Your task to perform on an android device: turn on javascript in the chrome app Image 0: 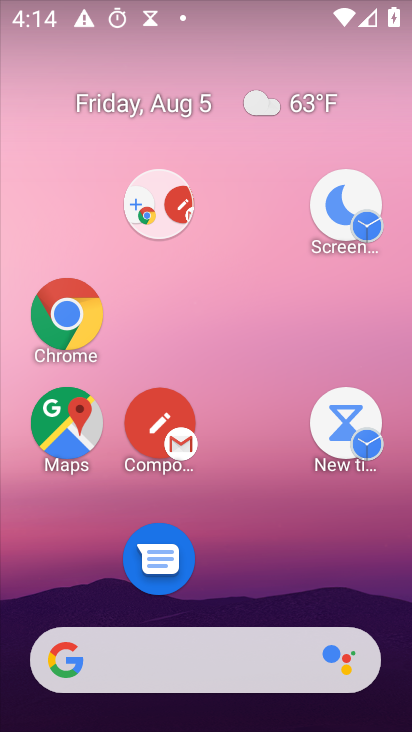
Step 0: press home button
Your task to perform on an android device: turn on javascript in the chrome app Image 1: 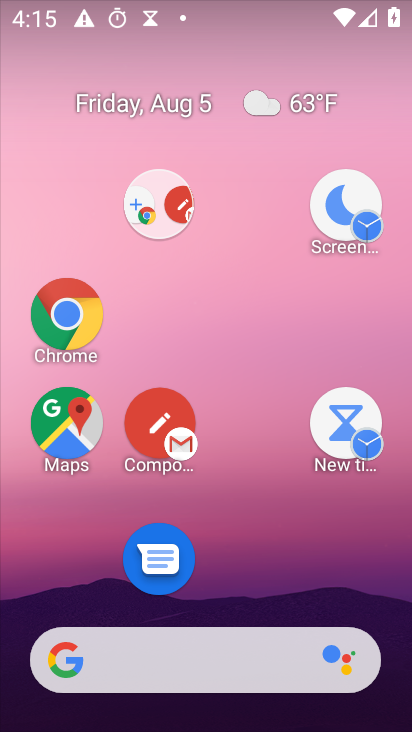
Step 1: drag from (276, 524) to (253, 64)
Your task to perform on an android device: turn on javascript in the chrome app Image 2: 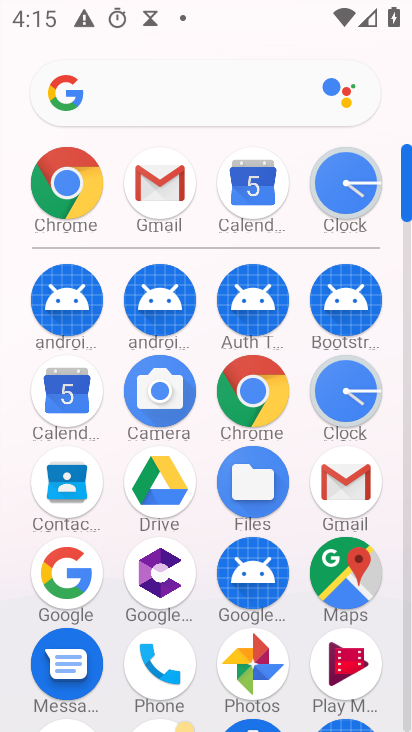
Step 2: click (85, 185)
Your task to perform on an android device: turn on javascript in the chrome app Image 3: 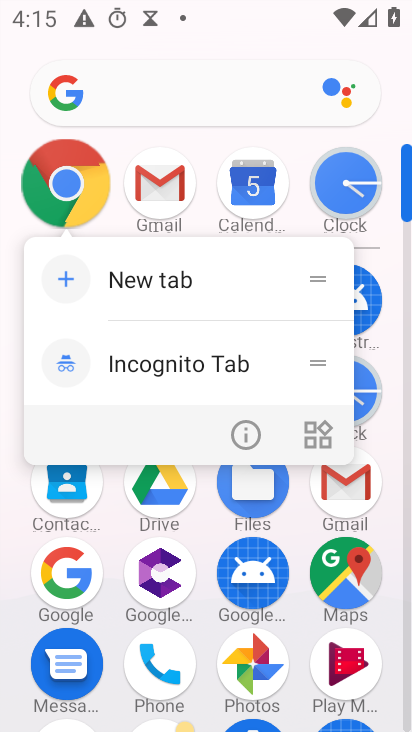
Step 3: click (87, 187)
Your task to perform on an android device: turn on javascript in the chrome app Image 4: 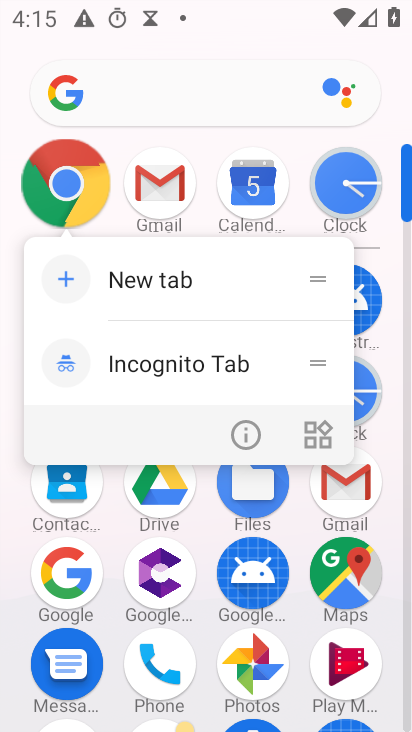
Step 4: click (79, 181)
Your task to perform on an android device: turn on javascript in the chrome app Image 5: 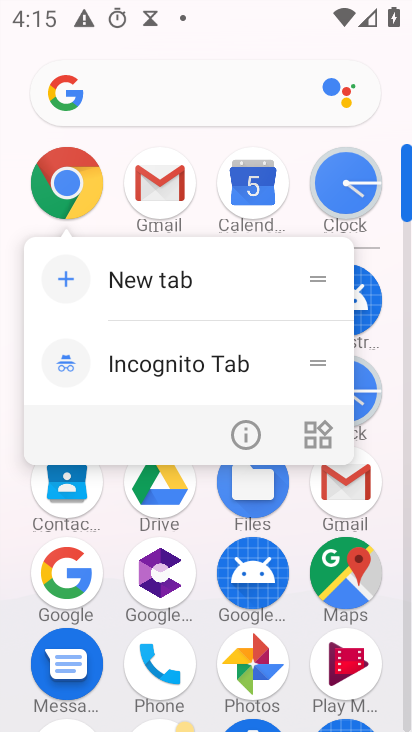
Step 5: click (131, 261)
Your task to perform on an android device: turn on javascript in the chrome app Image 6: 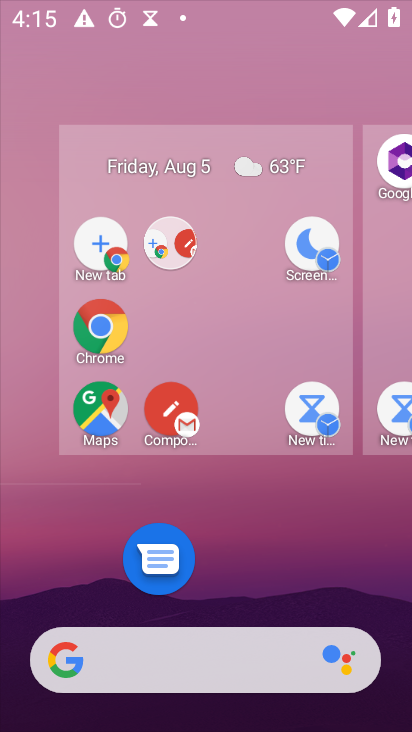
Step 6: drag from (238, 573) to (114, 95)
Your task to perform on an android device: turn on javascript in the chrome app Image 7: 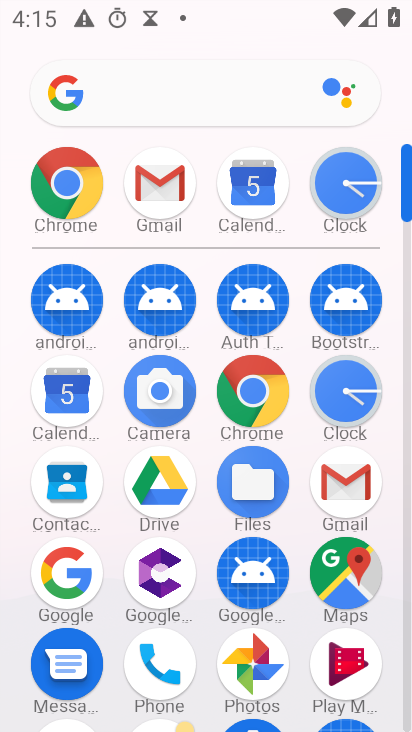
Step 7: click (78, 195)
Your task to perform on an android device: turn on javascript in the chrome app Image 8: 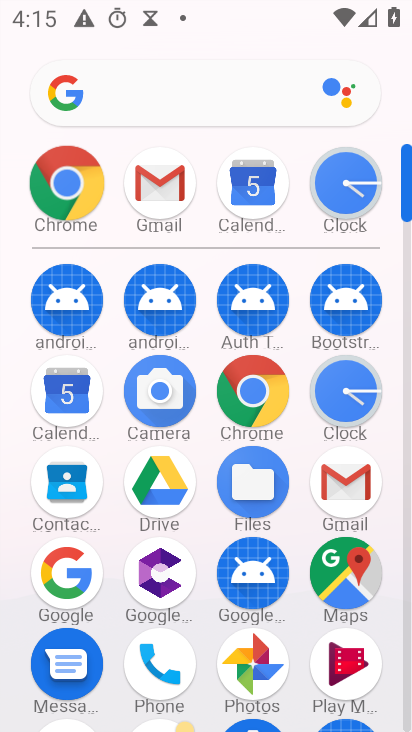
Step 8: click (70, 207)
Your task to perform on an android device: turn on javascript in the chrome app Image 9: 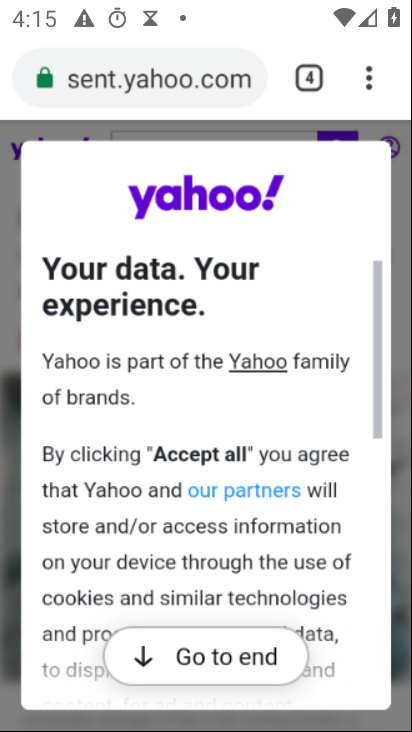
Step 9: click (84, 196)
Your task to perform on an android device: turn on javascript in the chrome app Image 10: 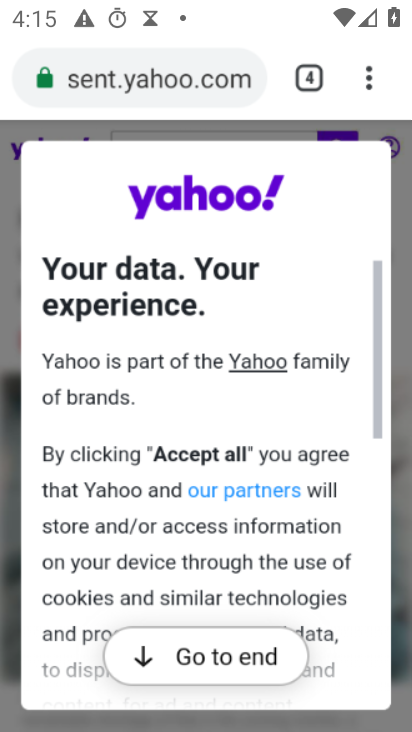
Step 10: drag from (364, 66) to (99, 618)
Your task to perform on an android device: turn on javascript in the chrome app Image 11: 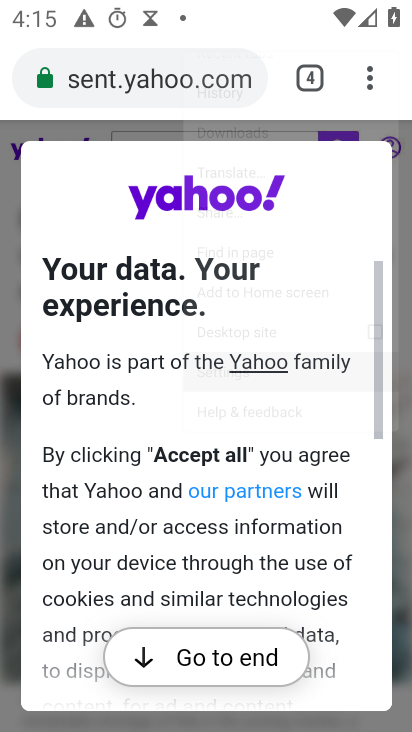
Step 11: click (99, 634)
Your task to perform on an android device: turn on javascript in the chrome app Image 12: 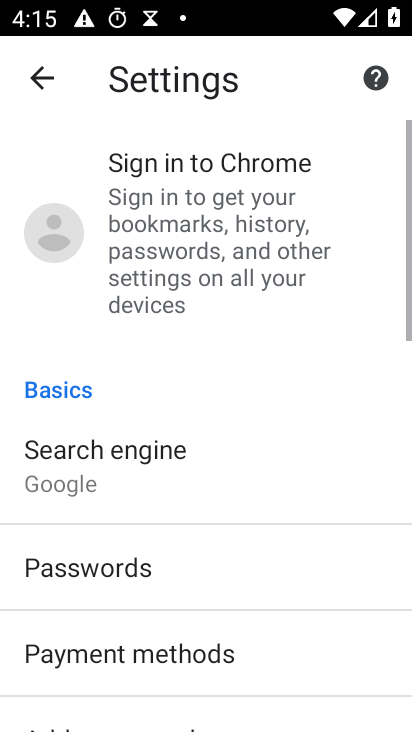
Step 12: drag from (169, 503) to (116, 180)
Your task to perform on an android device: turn on javascript in the chrome app Image 13: 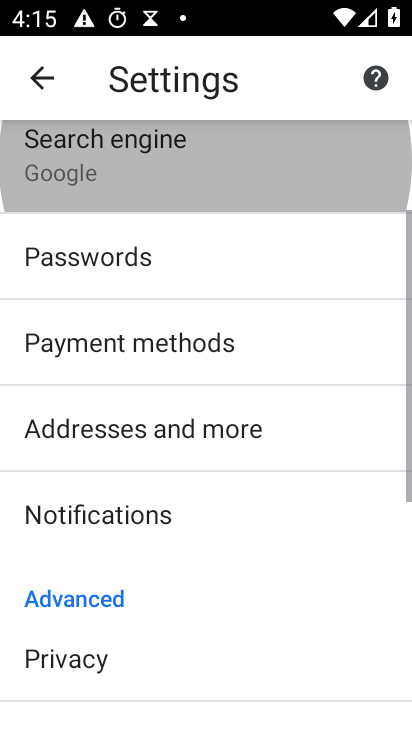
Step 13: drag from (124, 478) to (84, 240)
Your task to perform on an android device: turn on javascript in the chrome app Image 14: 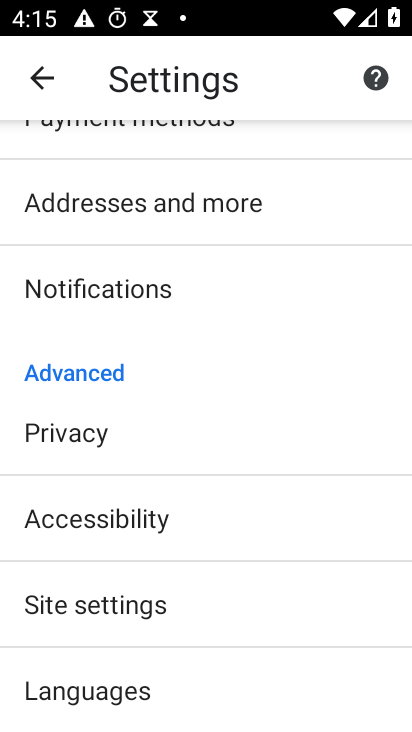
Step 14: drag from (119, 583) to (59, 366)
Your task to perform on an android device: turn on javascript in the chrome app Image 15: 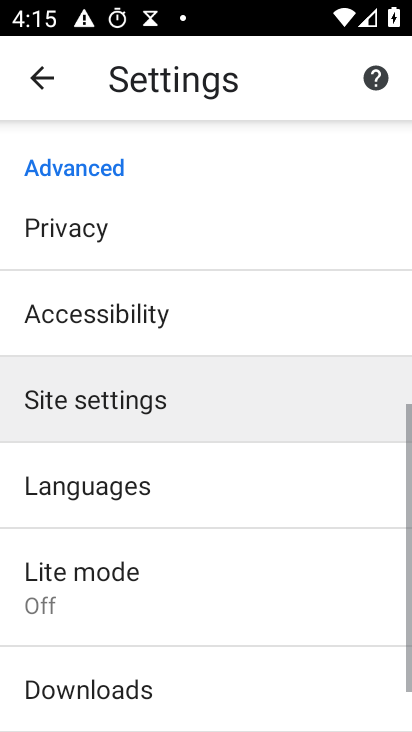
Step 15: drag from (129, 506) to (96, 273)
Your task to perform on an android device: turn on javascript in the chrome app Image 16: 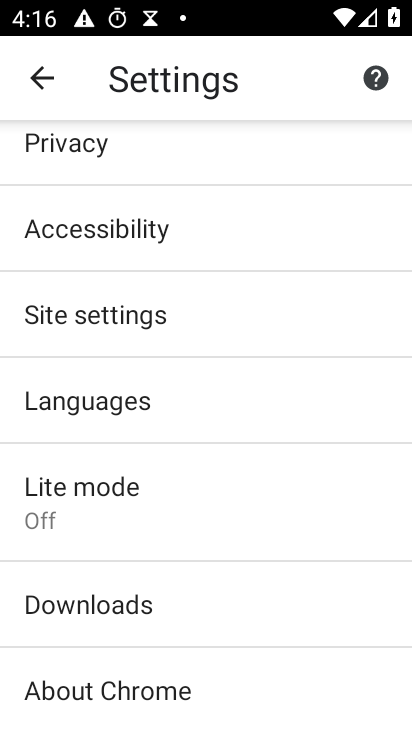
Step 16: click (70, 323)
Your task to perform on an android device: turn on javascript in the chrome app Image 17: 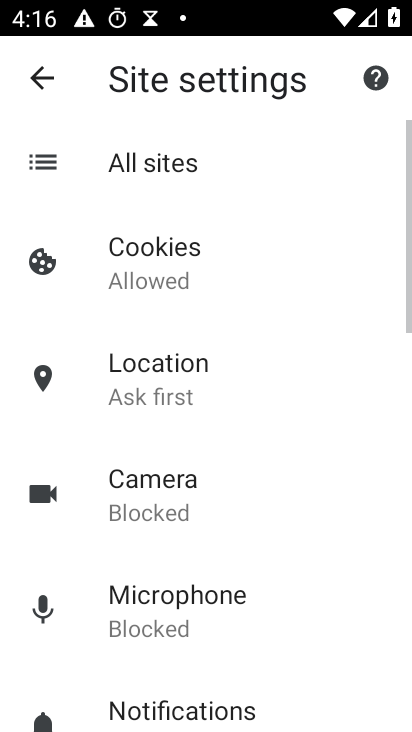
Step 17: drag from (150, 629) to (80, 194)
Your task to perform on an android device: turn on javascript in the chrome app Image 18: 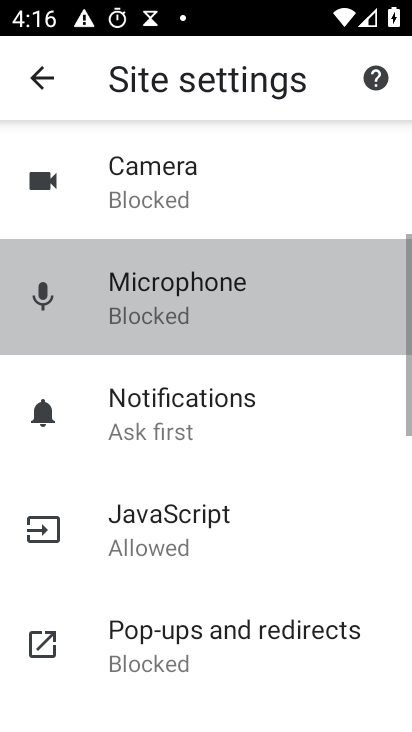
Step 18: drag from (155, 510) to (139, 246)
Your task to perform on an android device: turn on javascript in the chrome app Image 19: 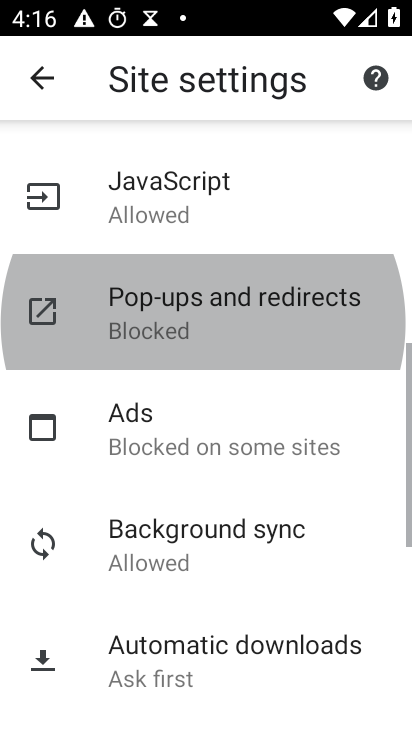
Step 19: drag from (162, 579) to (162, 335)
Your task to perform on an android device: turn on javascript in the chrome app Image 20: 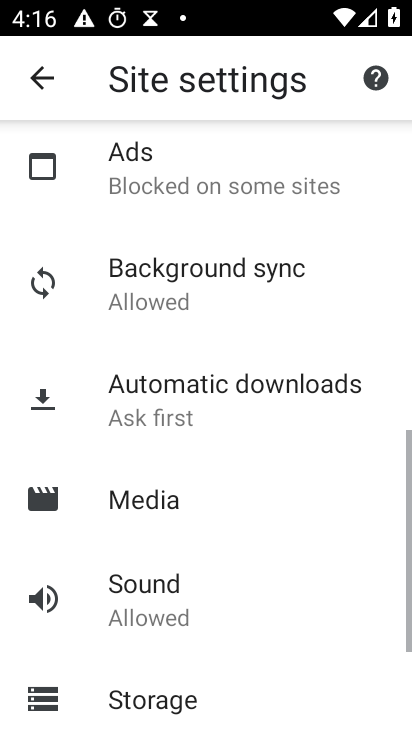
Step 20: drag from (196, 312) to (249, 655)
Your task to perform on an android device: turn on javascript in the chrome app Image 21: 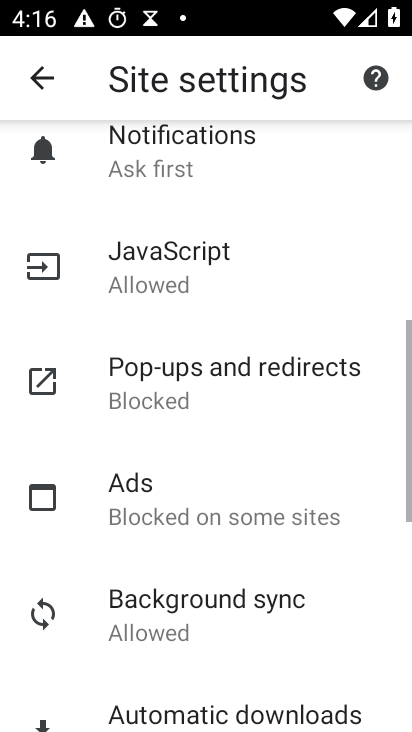
Step 21: drag from (210, 314) to (236, 500)
Your task to perform on an android device: turn on javascript in the chrome app Image 22: 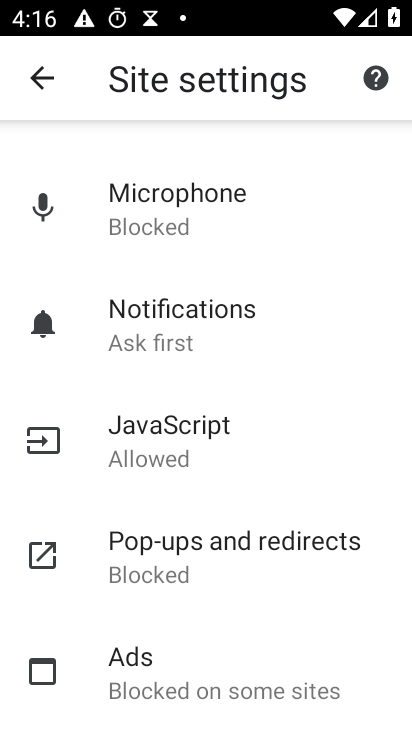
Step 22: click (169, 440)
Your task to perform on an android device: turn on javascript in the chrome app Image 23: 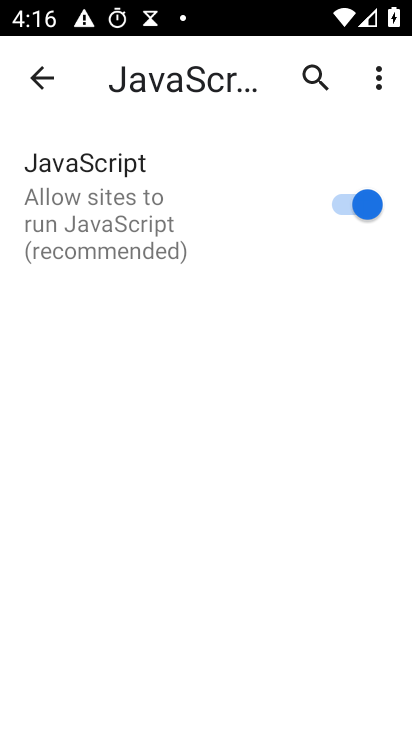
Step 23: task complete